Your task to perform on an android device: Empty the shopping cart on newegg.com. Search for "acer nitro" on newegg.com, select the first entry, add it to the cart, then select checkout. Image 0: 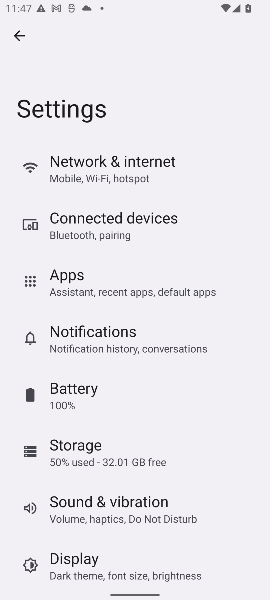
Step 0: press home button
Your task to perform on an android device: Empty the shopping cart on newegg.com. Search for "acer nitro" on newegg.com, select the first entry, add it to the cart, then select checkout. Image 1: 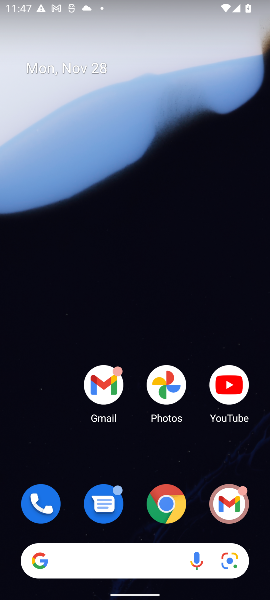
Step 1: click (162, 510)
Your task to perform on an android device: Empty the shopping cart on newegg.com. Search for "acer nitro" on newegg.com, select the first entry, add it to the cart, then select checkout. Image 2: 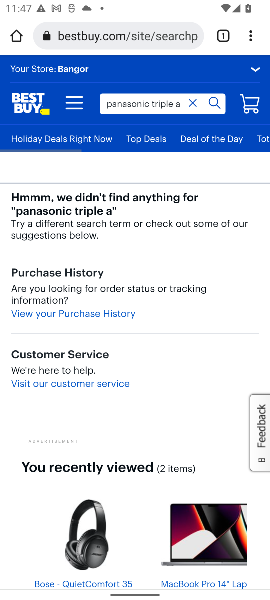
Step 2: click (109, 36)
Your task to perform on an android device: Empty the shopping cart on newegg.com. Search for "acer nitro" on newegg.com, select the first entry, add it to the cart, then select checkout. Image 3: 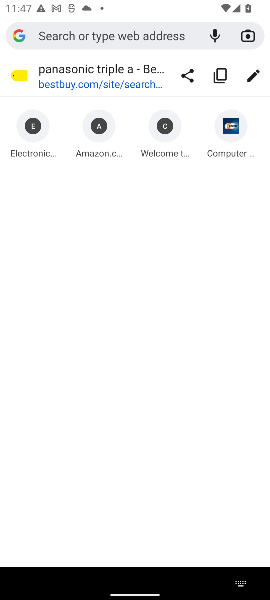
Step 3: click (225, 131)
Your task to perform on an android device: Empty the shopping cart on newegg.com. Search for "acer nitro" on newegg.com, select the first entry, add it to the cart, then select checkout. Image 4: 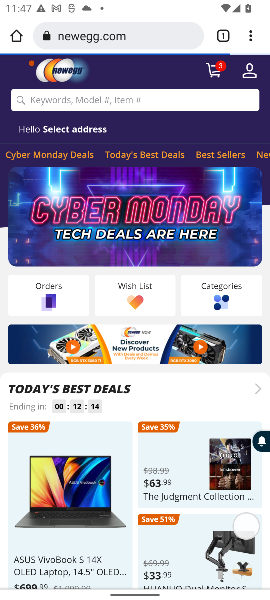
Step 4: click (215, 71)
Your task to perform on an android device: Empty the shopping cart on newegg.com. Search for "acer nitro" on newegg.com, select the first entry, add it to the cart, then select checkout. Image 5: 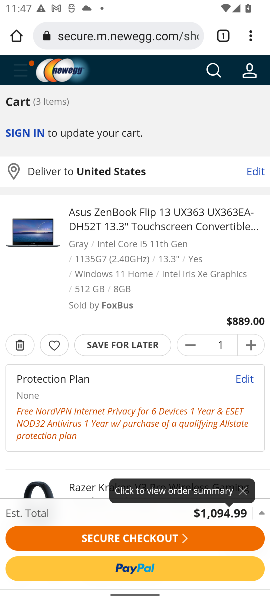
Step 5: click (21, 342)
Your task to perform on an android device: Empty the shopping cart on newegg.com. Search for "acer nitro" on newegg.com, select the first entry, add it to the cart, then select checkout. Image 6: 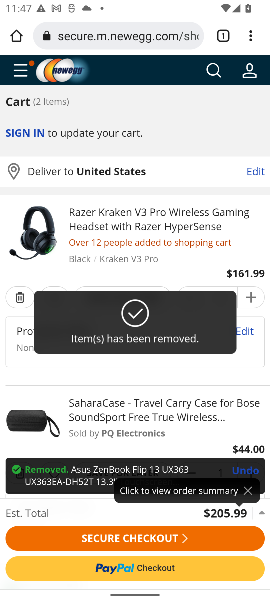
Step 6: click (17, 295)
Your task to perform on an android device: Empty the shopping cart on newegg.com. Search for "acer nitro" on newegg.com, select the first entry, add it to the cart, then select checkout. Image 7: 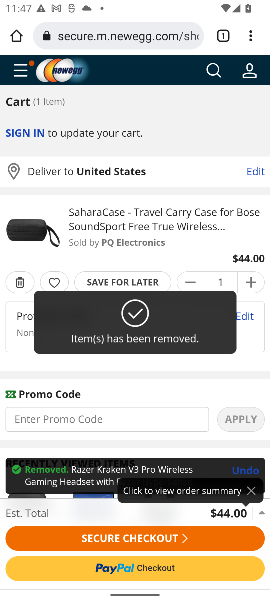
Step 7: click (21, 284)
Your task to perform on an android device: Empty the shopping cart on newegg.com. Search for "acer nitro" on newegg.com, select the first entry, add it to the cart, then select checkout. Image 8: 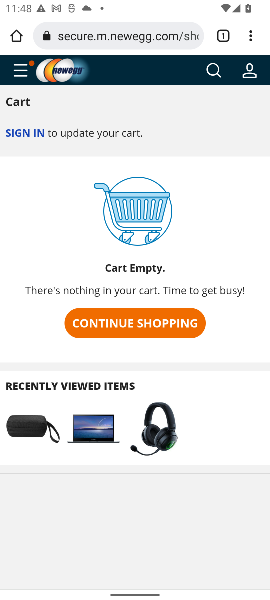
Step 8: click (207, 79)
Your task to perform on an android device: Empty the shopping cart on newegg.com. Search for "acer nitro" on newegg.com, select the first entry, add it to the cart, then select checkout. Image 9: 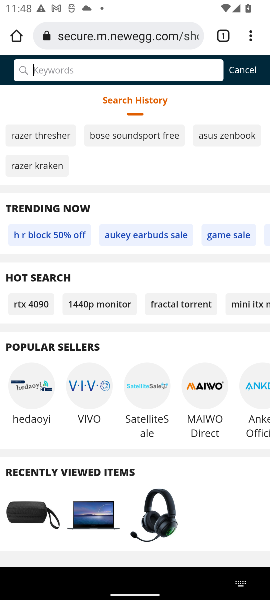
Step 9: type "acer nitro"
Your task to perform on an android device: Empty the shopping cart on newegg.com. Search for "acer nitro" on newegg.com, select the first entry, add it to the cart, then select checkout. Image 10: 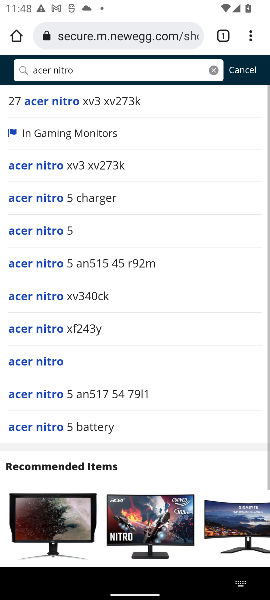
Step 10: click (50, 365)
Your task to perform on an android device: Empty the shopping cart on newegg.com. Search for "acer nitro" on newegg.com, select the first entry, add it to the cart, then select checkout. Image 11: 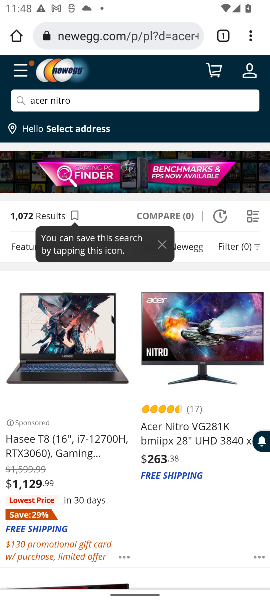
Step 11: click (60, 374)
Your task to perform on an android device: Empty the shopping cart on newegg.com. Search for "acer nitro" on newegg.com, select the first entry, add it to the cart, then select checkout. Image 12: 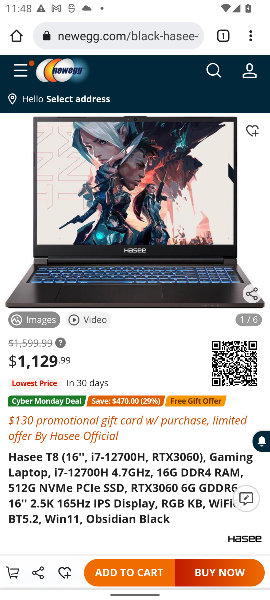
Step 12: task complete